Your task to perform on an android device: change the clock display to show seconds Image 0: 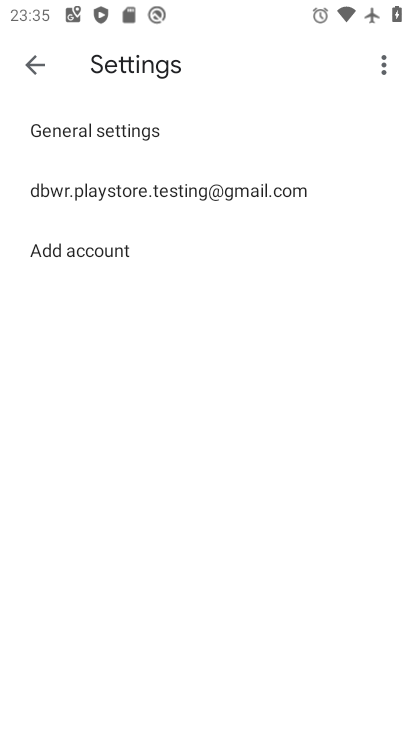
Step 0: press back button
Your task to perform on an android device: change the clock display to show seconds Image 1: 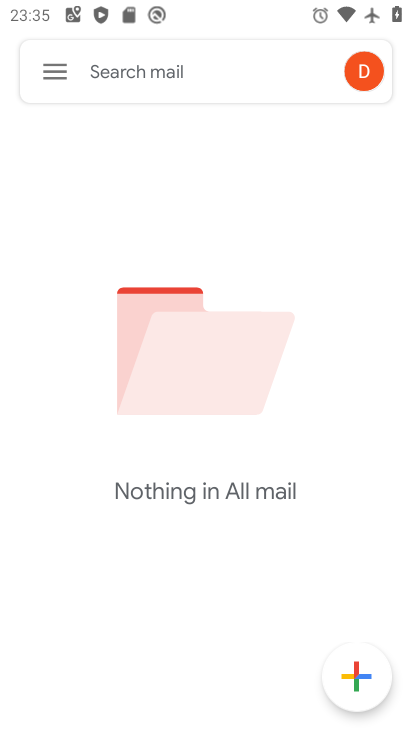
Step 1: press back button
Your task to perform on an android device: change the clock display to show seconds Image 2: 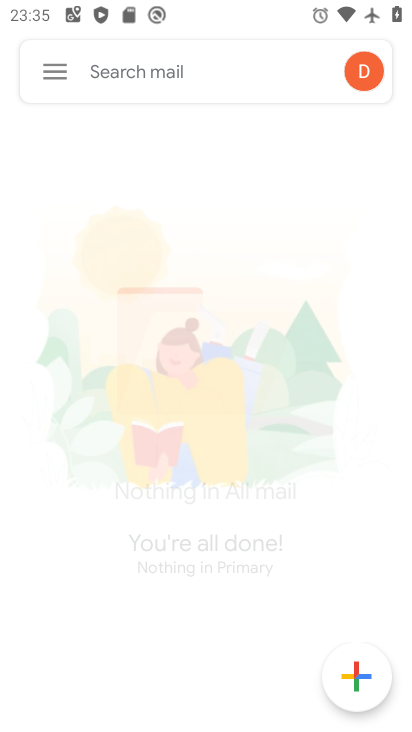
Step 2: press home button
Your task to perform on an android device: change the clock display to show seconds Image 3: 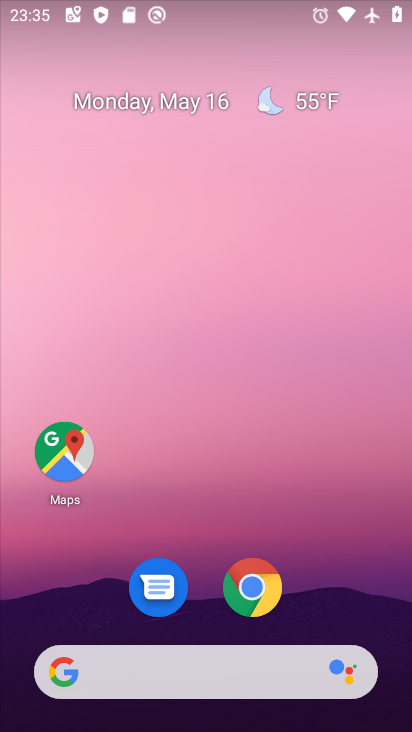
Step 3: drag from (312, 520) to (165, 64)
Your task to perform on an android device: change the clock display to show seconds Image 4: 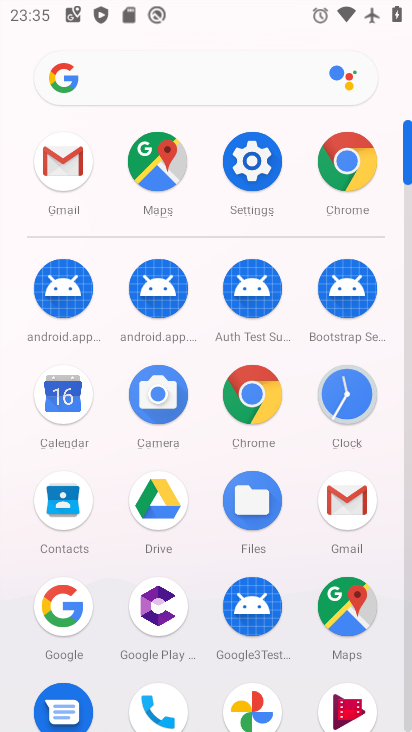
Step 4: drag from (3, 550) to (2, 229)
Your task to perform on an android device: change the clock display to show seconds Image 5: 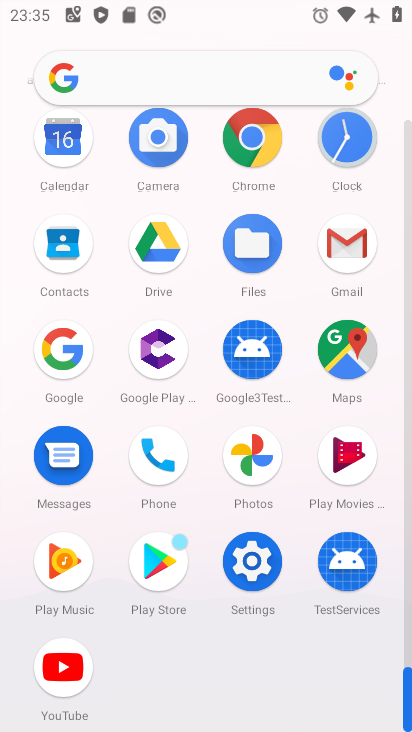
Step 5: click (344, 131)
Your task to perform on an android device: change the clock display to show seconds Image 6: 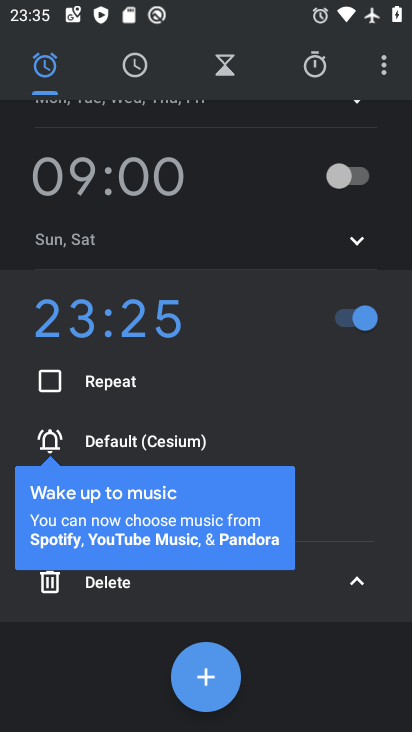
Step 6: drag from (389, 71) to (316, 118)
Your task to perform on an android device: change the clock display to show seconds Image 7: 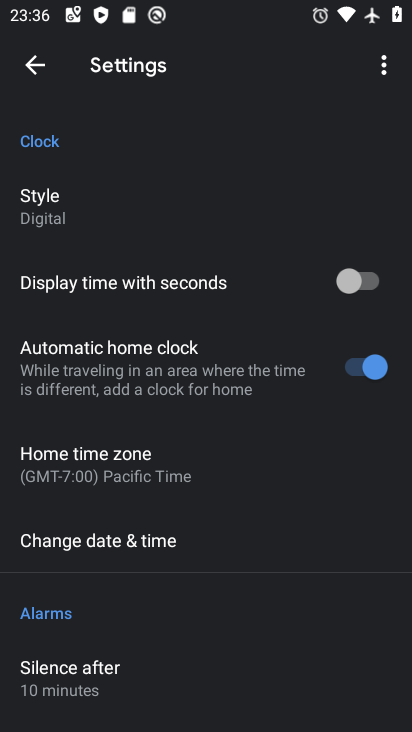
Step 7: drag from (221, 513) to (159, 211)
Your task to perform on an android device: change the clock display to show seconds Image 8: 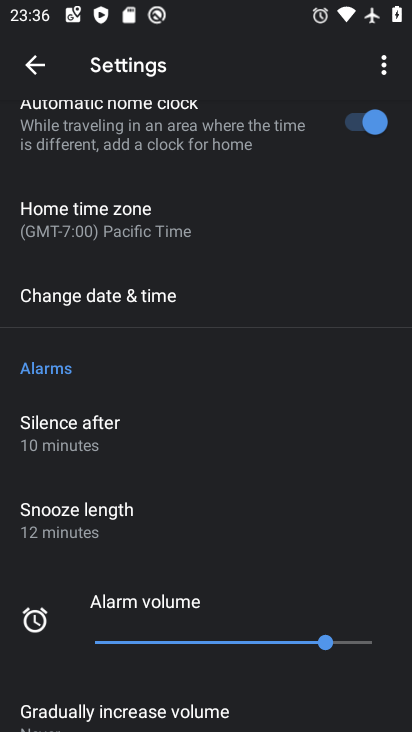
Step 8: drag from (235, 475) to (211, 110)
Your task to perform on an android device: change the clock display to show seconds Image 9: 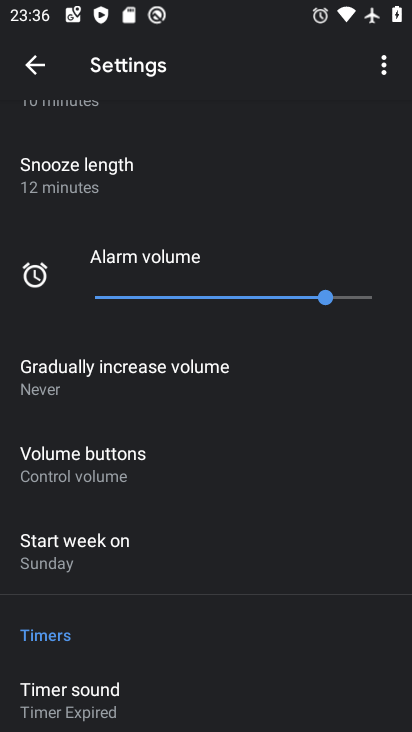
Step 9: drag from (212, 546) to (200, 177)
Your task to perform on an android device: change the clock display to show seconds Image 10: 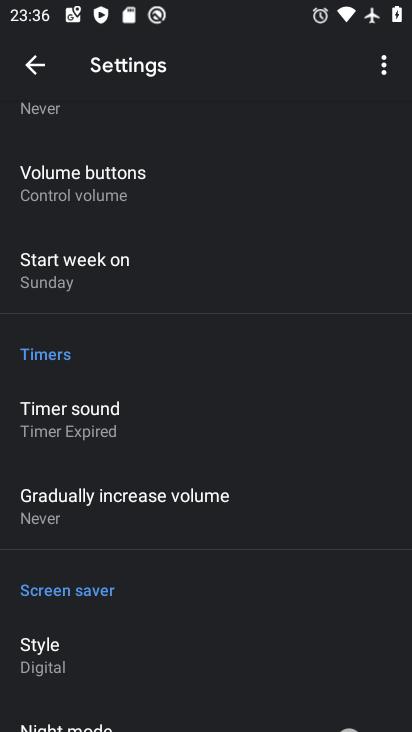
Step 10: drag from (221, 553) to (230, 155)
Your task to perform on an android device: change the clock display to show seconds Image 11: 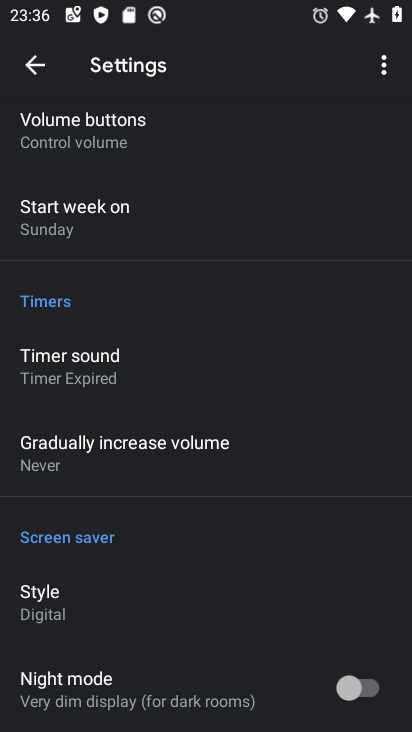
Step 11: drag from (196, 150) to (175, 561)
Your task to perform on an android device: change the clock display to show seconds Image 12: 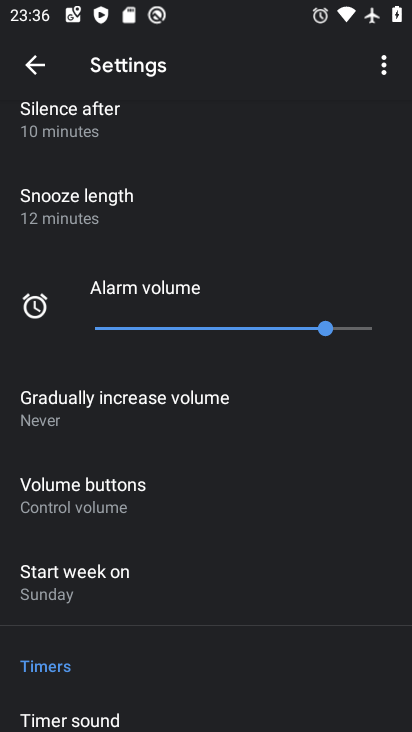
Step 12: drag from (196, 169) to (224, 488)
Your task to perform on an android device: change the clock display to show seconds Image 13: 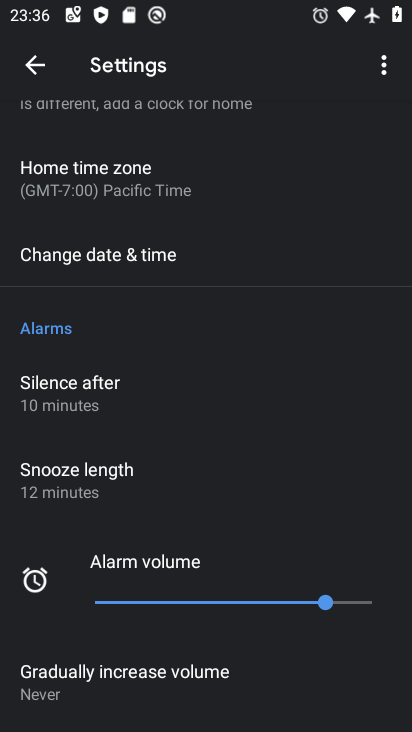
Step 13: drag from (215, 272) to (214, 595)
Your task to perform on an android device: change the clock display to show seconds Image 14: 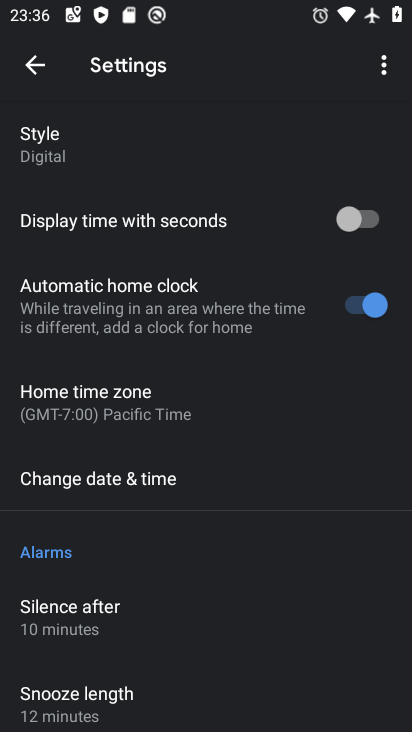
Step 14: click (348, 219)
Your task to perform on an android device: change the clock display to show seconds Image 15: 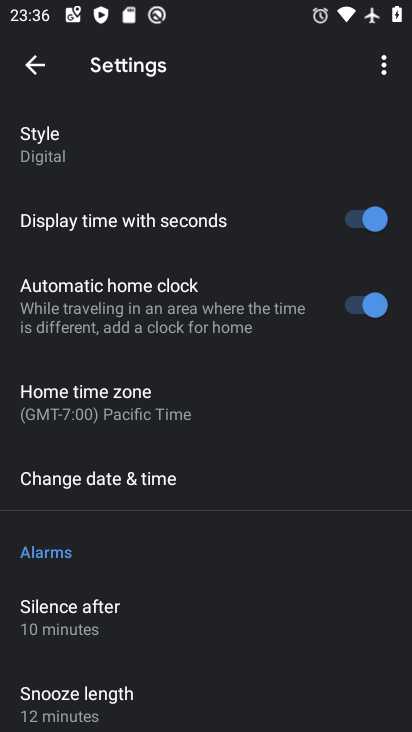
Step 15: task complete